Your task to perform on an android device: change keyboard looks Image 0: 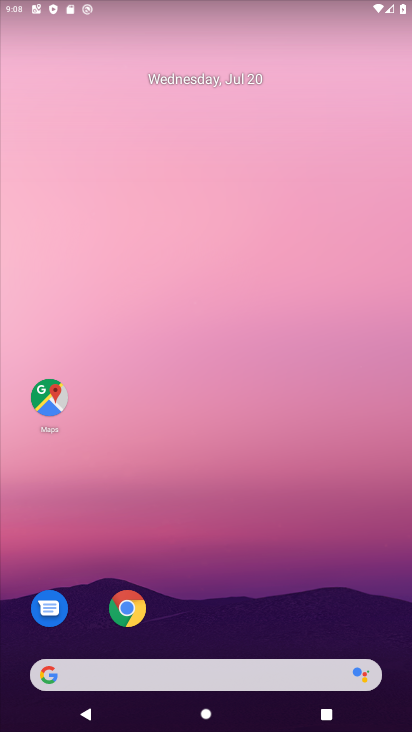
Step 0: drag from (252, 590) to (165, 43)
Your task to perform on an android device: change keyboard looks Image 1: 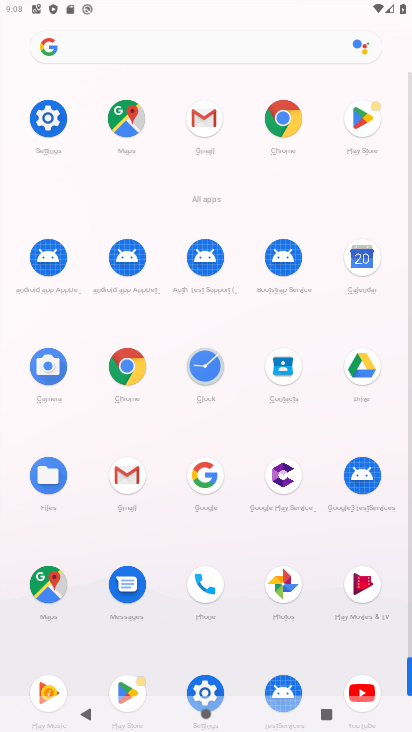
Step 1: click (46, 106)
Your task to perform on an android device: change keyboard looks Image 2: 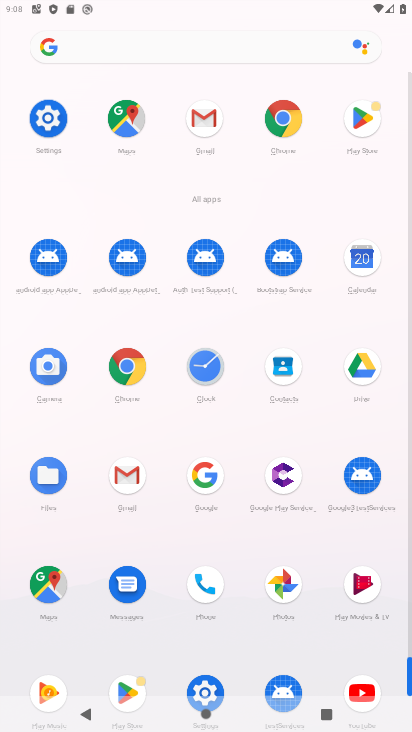
Step 2: click (46, 106)
Your task to perform on an android device: change keyboard looks Image 3: 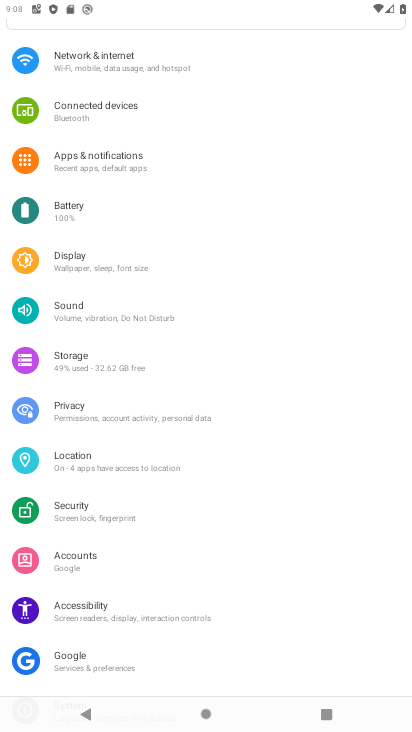
Step 3: drag from (160, 609) to (61, 2)
Your task to perform on an android device: change keyboard looks Image 4: 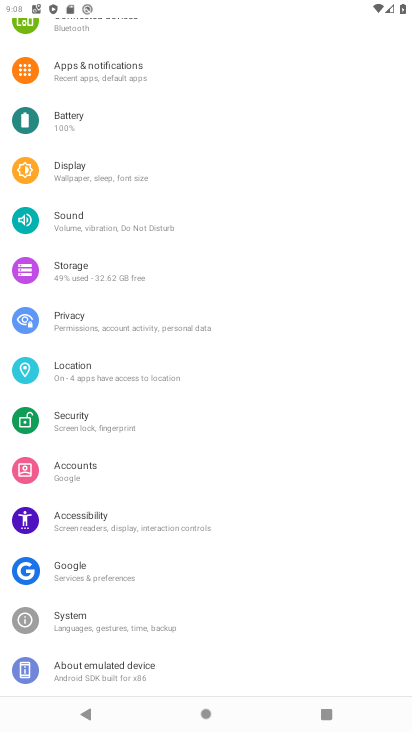
Step 4: click (103, 631)
Your task to perform on an android device: change keyboard looks Image 5: 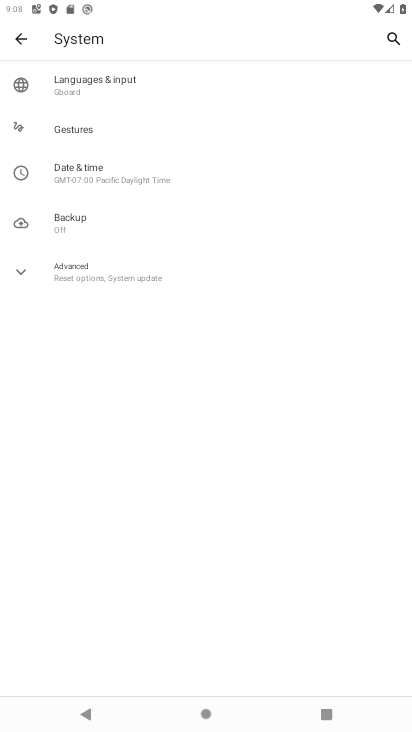
Step 5: click (64, 93)
Your task to perform on an android device: change keyboard looks Image 6: 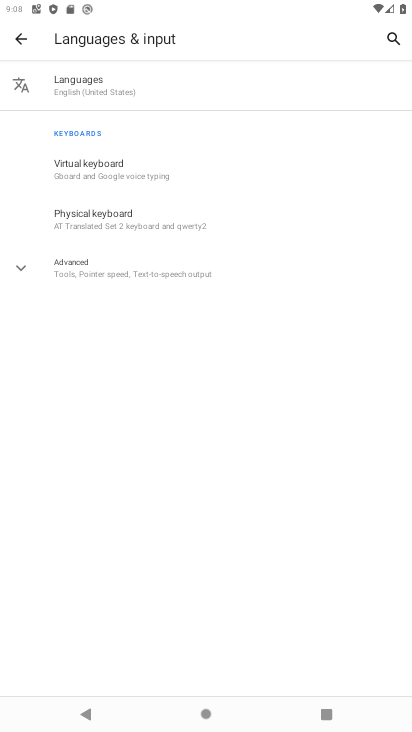
Step 6: click (121, 167)
Your task to perform on an android device: change keyboard looks Image 7: 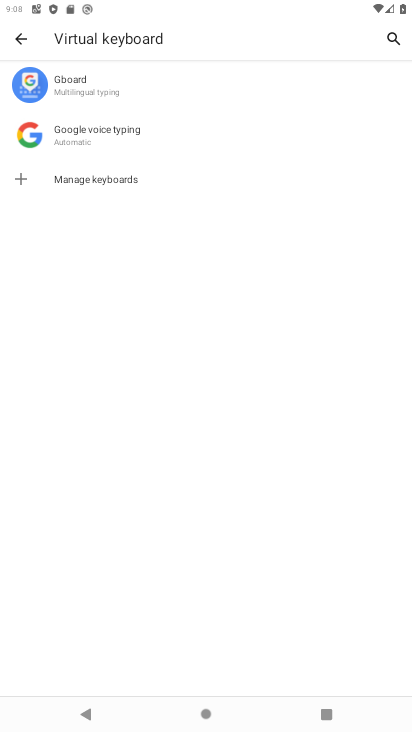
Step 7: click (84, 86)
Your task to perform on an android device: change keyboard looks Image 8: 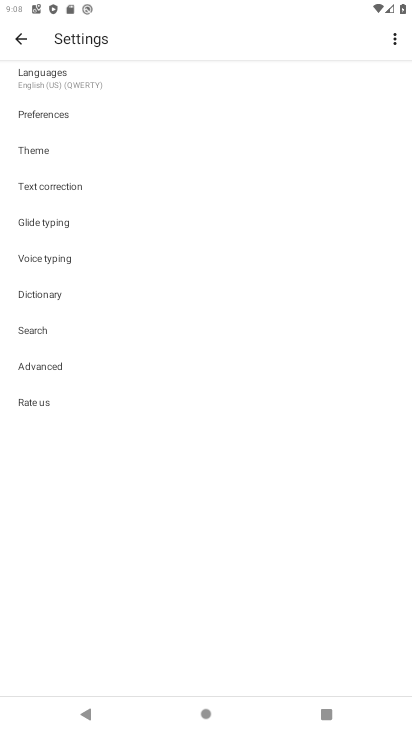
Step 8: click (39, 151)
Your task to perform on an android device: change keyboard looks Image 9: 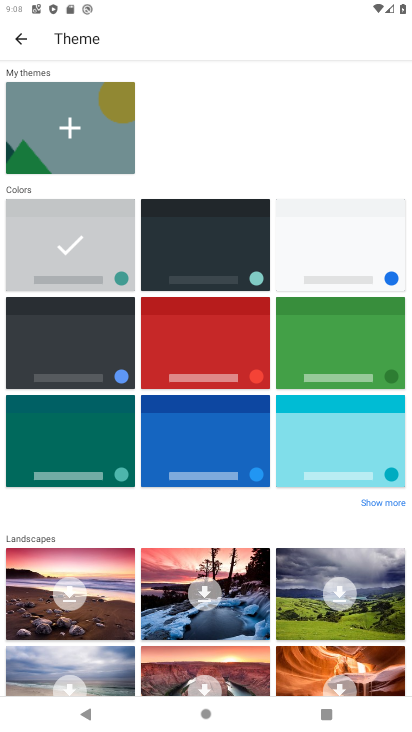
Step 9: click (193, 349)
Your task to perform on an android device: change keyboard looks Image 10: 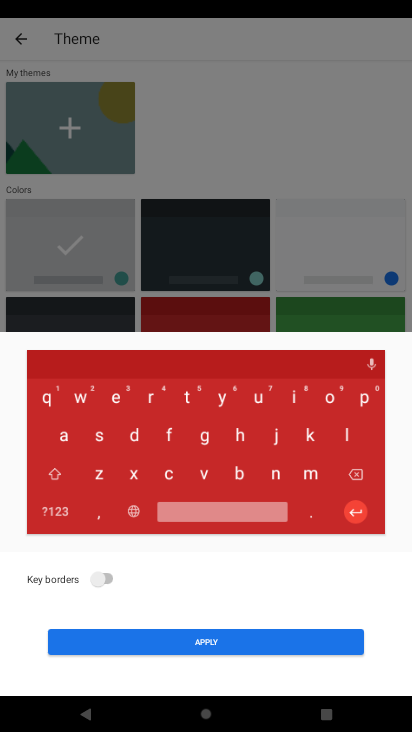
Step 10: drag from (260, 544) to (245, 49)
Your task to perform on an android device: change keyboard looks Image 11: 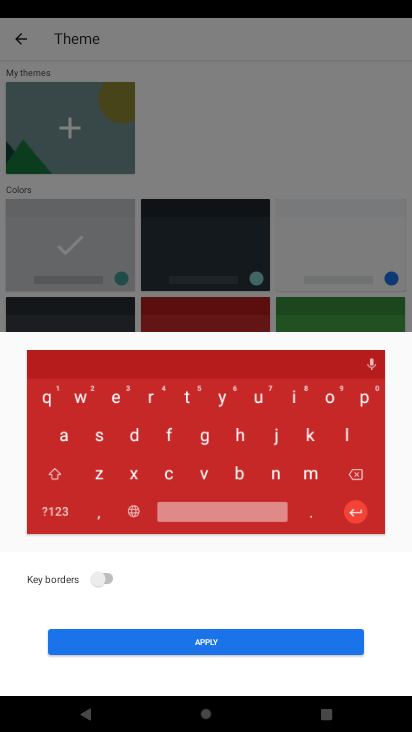
Step 11: click (183, 641)
Your task to perform on an android device: change keyboard looks Image 12: 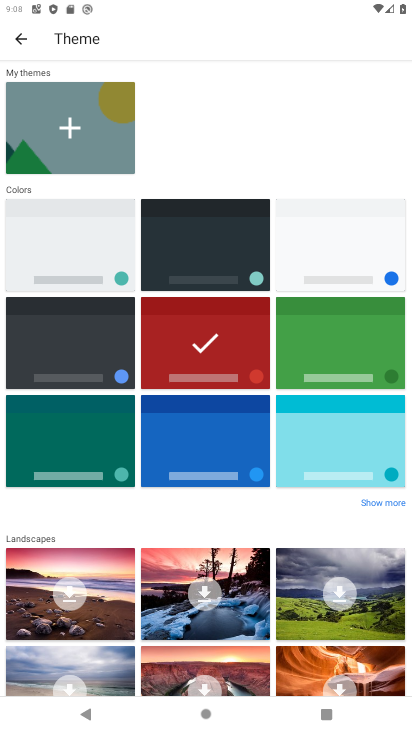
Step 12: task complete